Your task to perform on an android device: open chrome privacy settings Image 0: 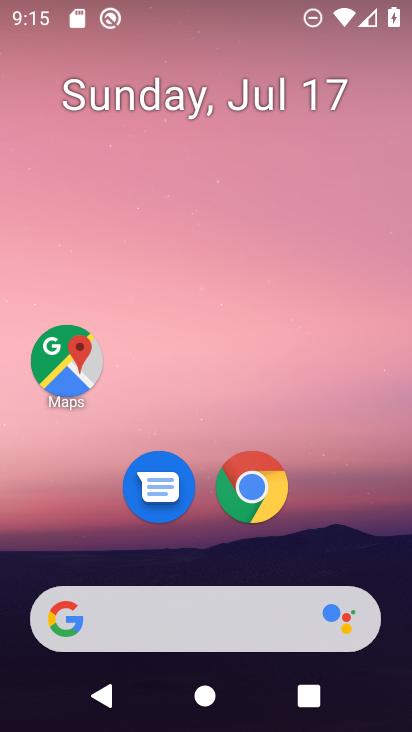
Step 0: drag from (351, 529) to (334, 194)
Your task to perform on an android device: open chrome privacy settings Image 1: 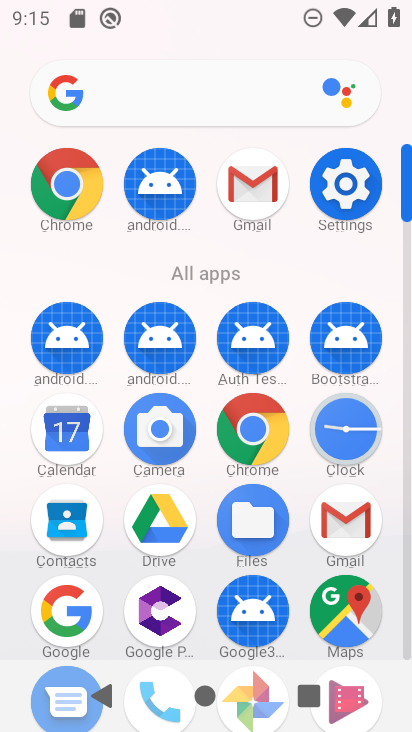
Step 1: click (334, 196)
Your task to perform on an android device: open chrome privacy settings Image 2: 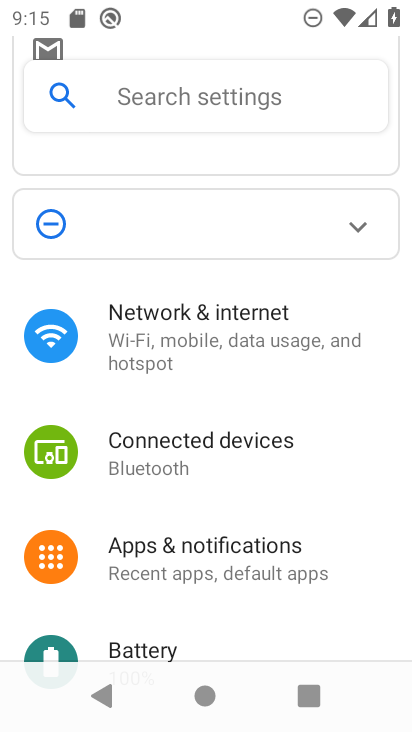
Step 2: drag from (235, 624) to (152, 252)
Your task to perform on an android device: open chrome privacy settings Image 3: 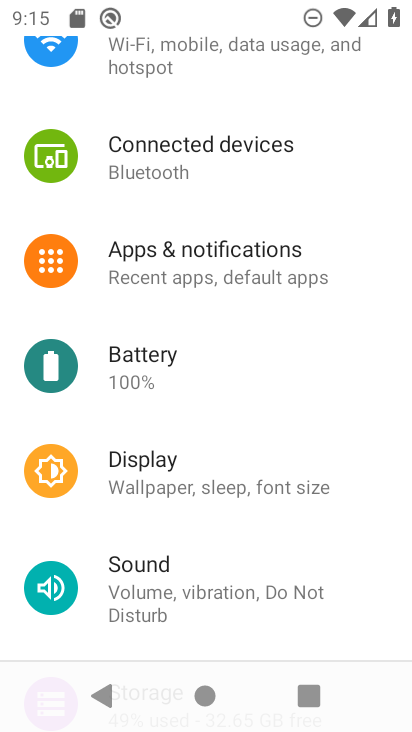
Step 3: drag from (199, 623) to (166, 315)
Your task to perform on an android device: open chrome privacy settings Image 4: 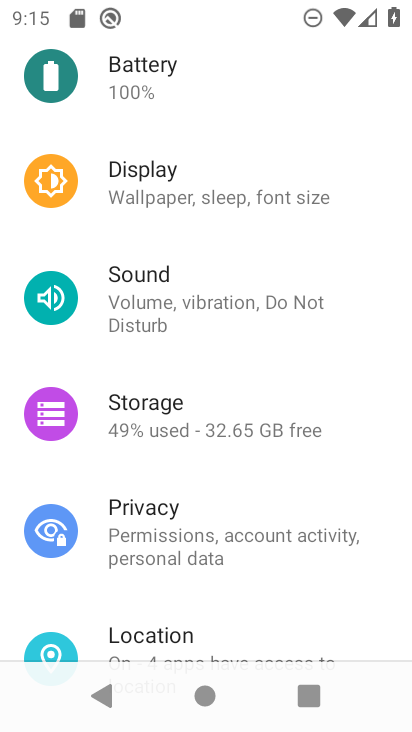
Step 4: click (184, 530)
Your task to perform on an android device: open chrome privacy settings Image 5: 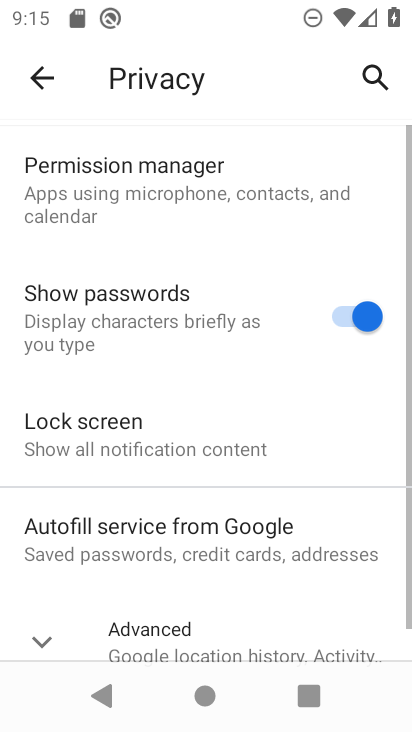
Step 5: task complete